Your task to perform on an android device: turn off improve location accuracy Image 0: 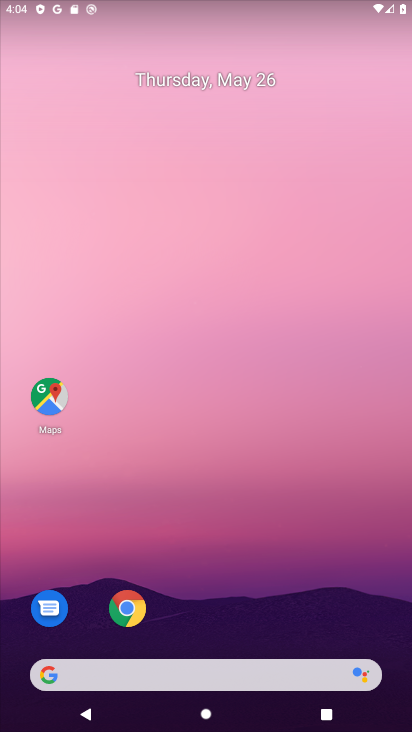
Step 0: drag from (243, 608) to (230, 129)
Your task to perform on an android device: turn off improve location accuracy Image 1: 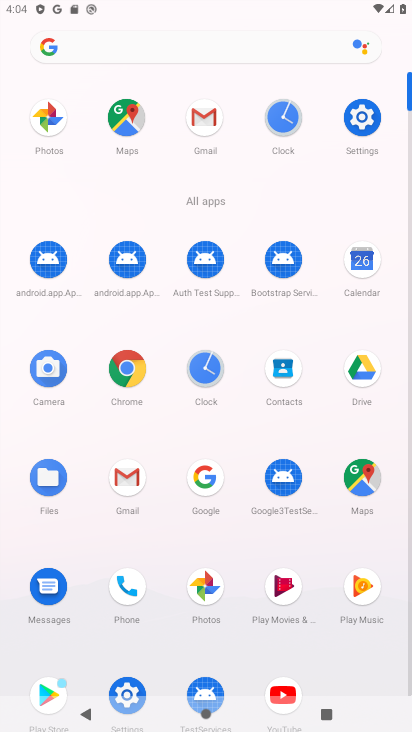
Step 1: click (362, 137)
Your task to perform on an android device: turn off improve location accuracy Image 2: 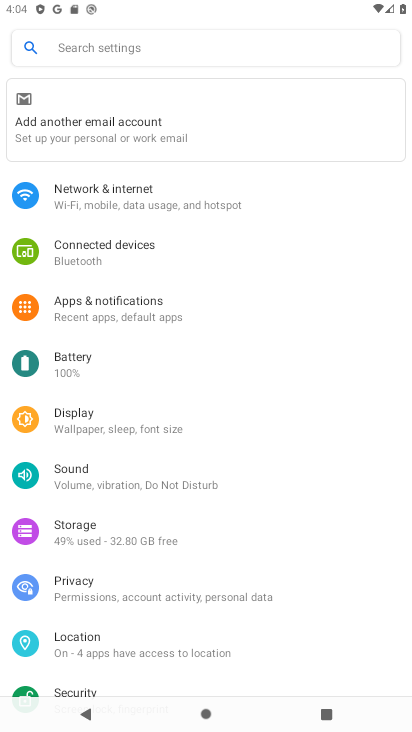
Step 2: click (152, 643)
Your task to perform on an android device: turn off improve location accuracy Image 3: 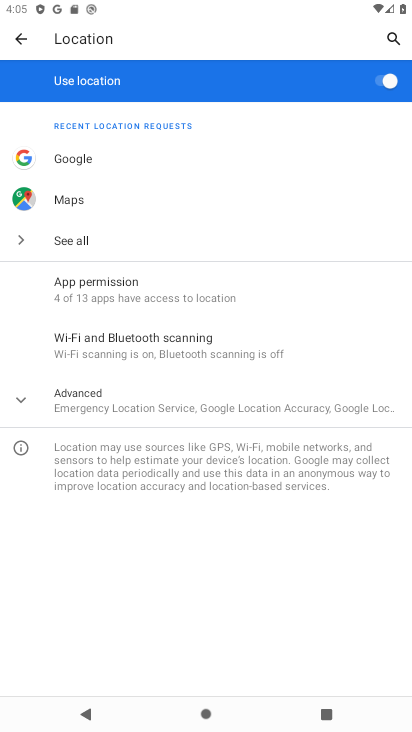
Step 3: click (388, 81)
Your task to perform on an android device: turn off improve location accuracy Image 4: 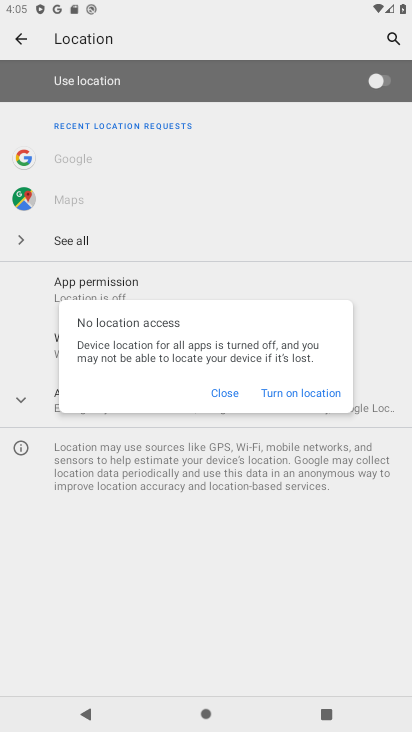
Step 4: task complete